Your task to perform on an android device: turn off airplane mode Image 0: 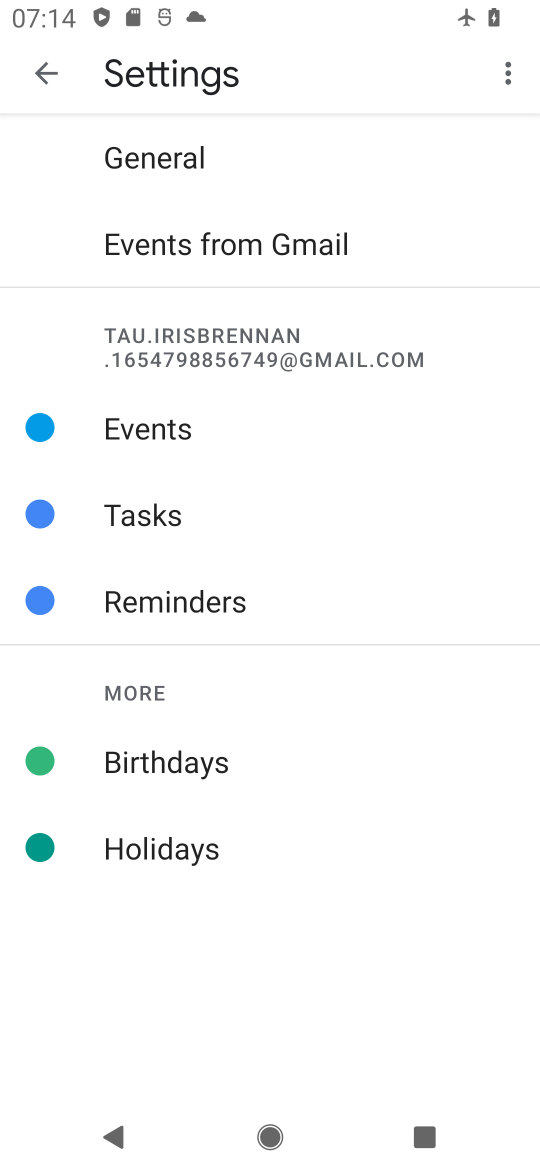
Step 0: press home button
Your task to perform on an android device: turn off airplane mode Image 1: 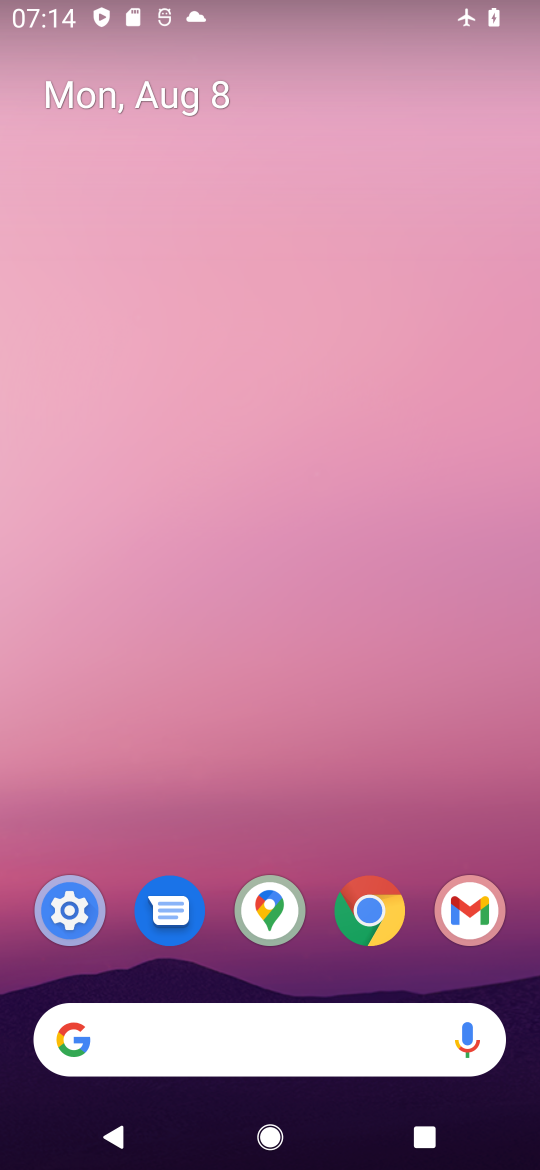
Step 1: drag from (172, 1032) to (224, 184)
Your task to perform on an android device: turn off airplane mode Image 2: 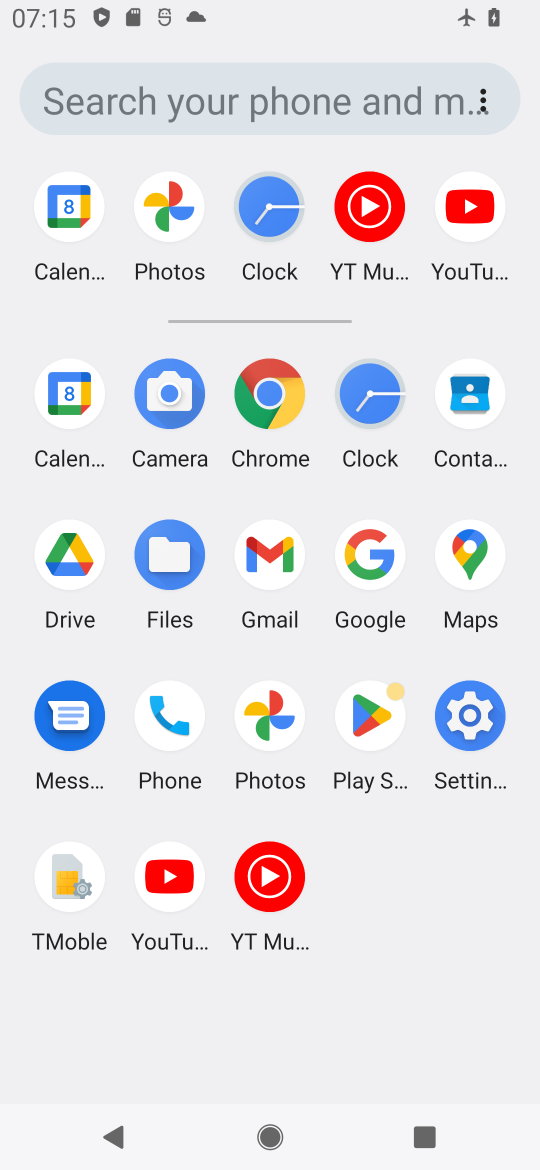
Step 2: click (470, 715)
Your task to perform on an android device: turn off airplane mode Image 3: 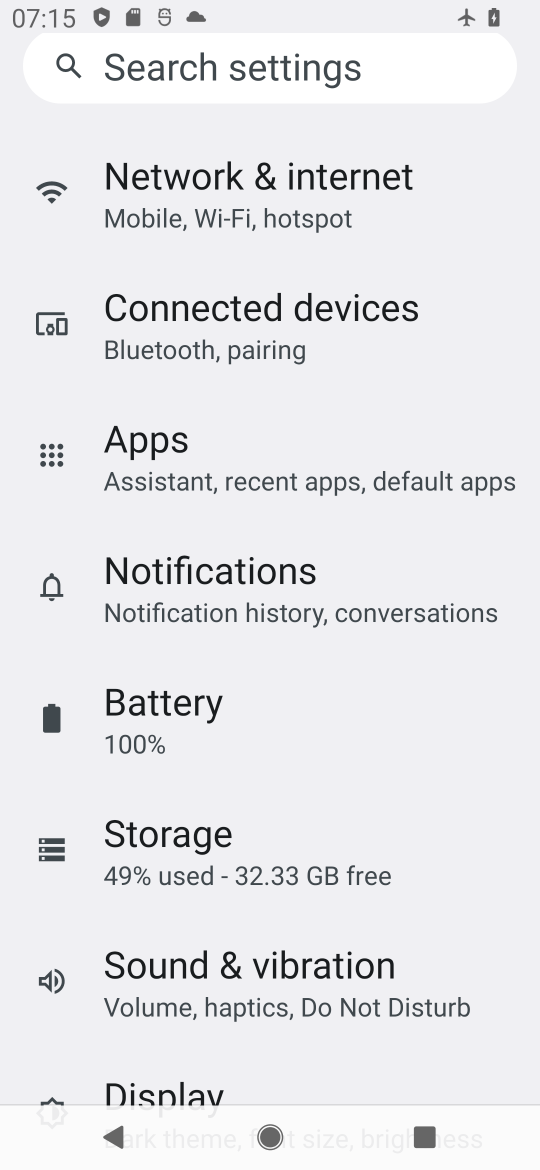
Step 3: click (305, 200)
Your task to perform on an android device: turn off airplane mode Image 4: 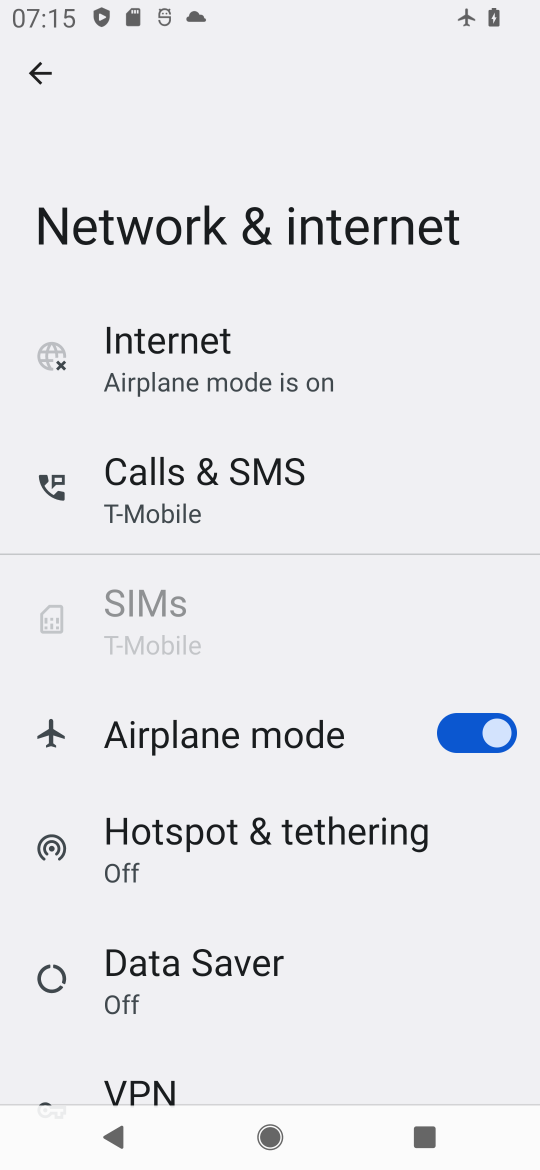
Step 4: click (464, 738)
Your task to perform on an android device: turn off airplane mode Image 5: 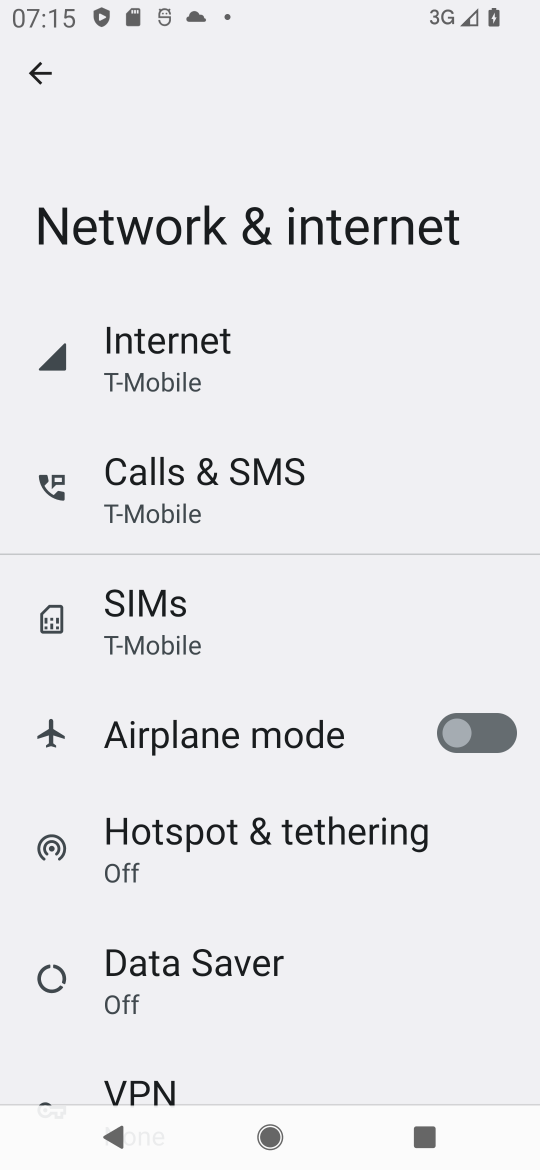
Step 5: task complete